Your task to perform on an android device: open app "Gmail" Image 0: 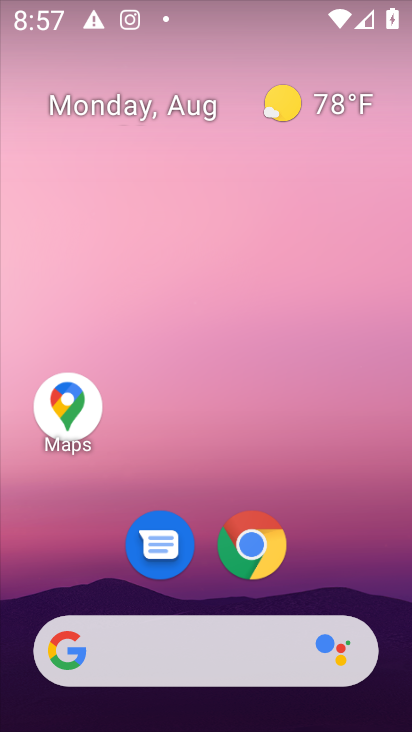
Step 0: press home button
Your task to perform on an android device: open app "Gmail" Image 1: 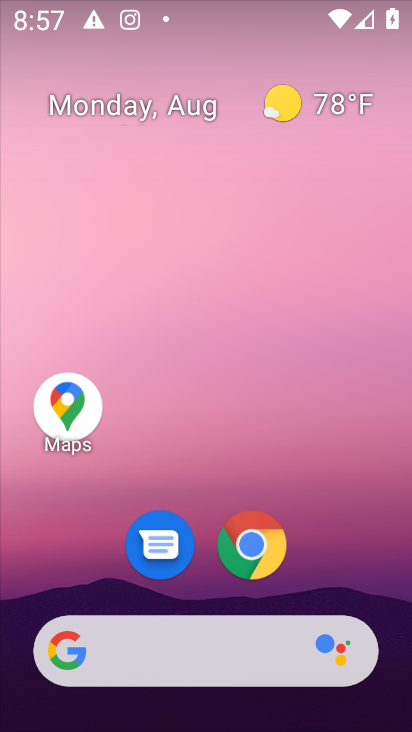
Step 1: drag from (370, 564) to (325, 136)
Your task to perform on an android device: open app "Gmail" Image 2: 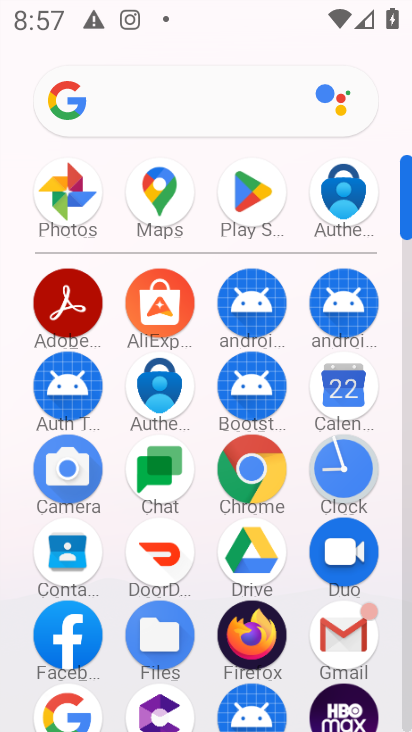
Step 2: click (264, 196)
Your task to perform on an android device: open app "Gmail" Image 3: 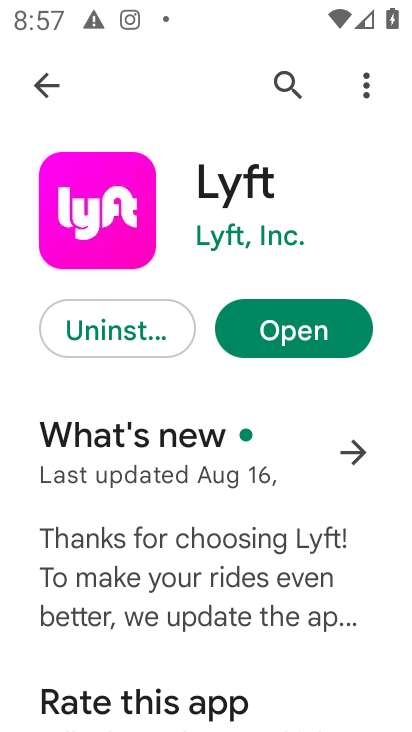
Step 3: press back button
Your task to perform on an android device: open app "Gmail" Image 4: 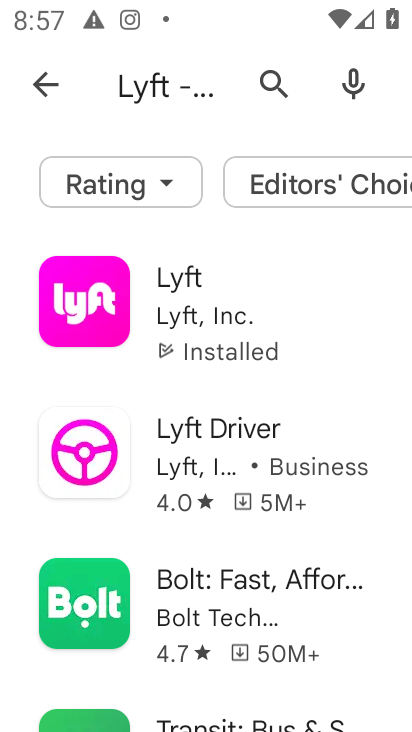
Step 4: press back button
Your task to perform on an android device: open app "Gmail" Image 5: 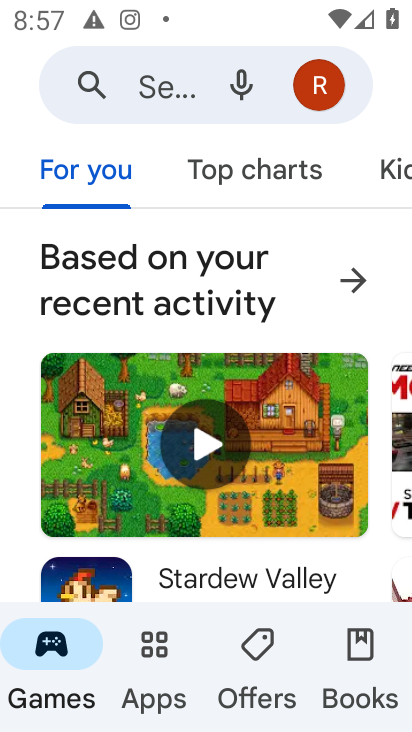
Step 5: click (147, 87)
Your task to perform on an android device: open app "Gmail" Image 6: 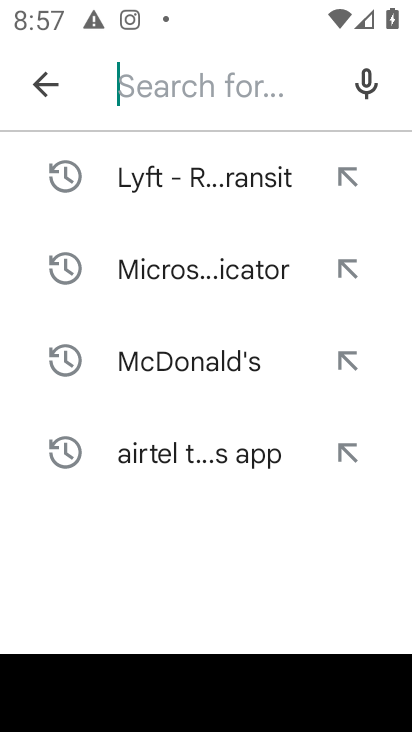
Step 6: type "gmail"
Your task to perform on an android device: open app "Gmail" Image 7: 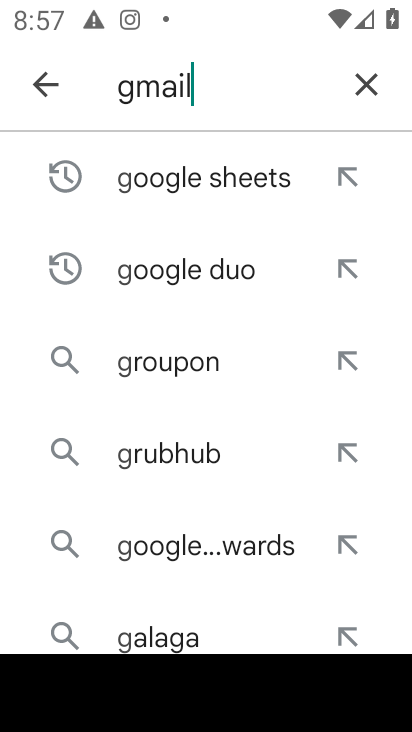
Step 7: press enter
Your task to perform on an android device: open app "Gmail" Image 8: 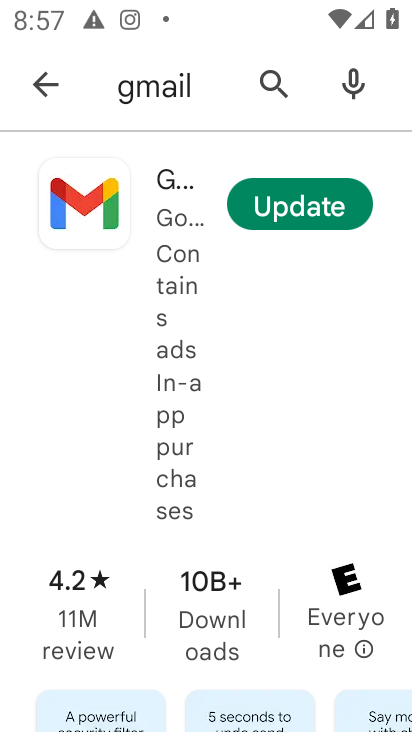
Step 8: click (298, 212)
Your task to perform on an android device: open app "Gmail" Image 9: 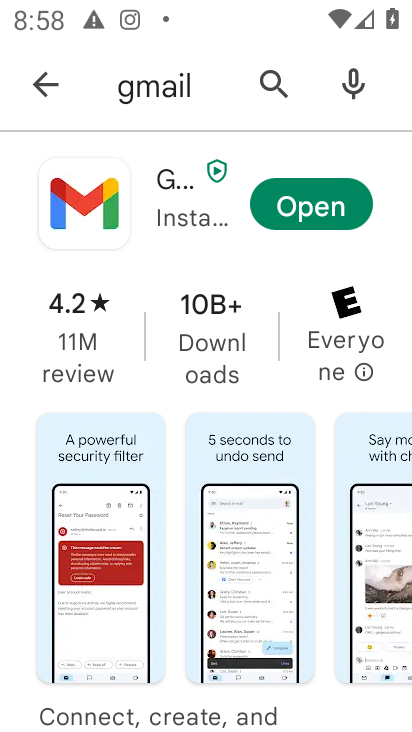
Step 9: click (343, 210)
Your task to perform on an android device: open app "Gmail" Image 10: 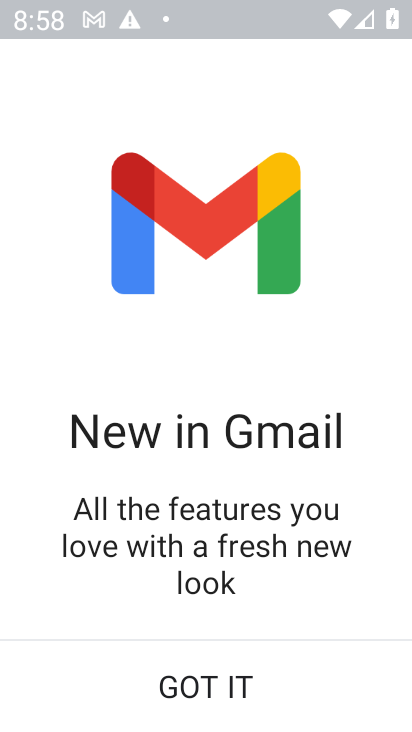
Step 10: task complete